Your task to perform on an android device: Go to Wikipedia Image 0: 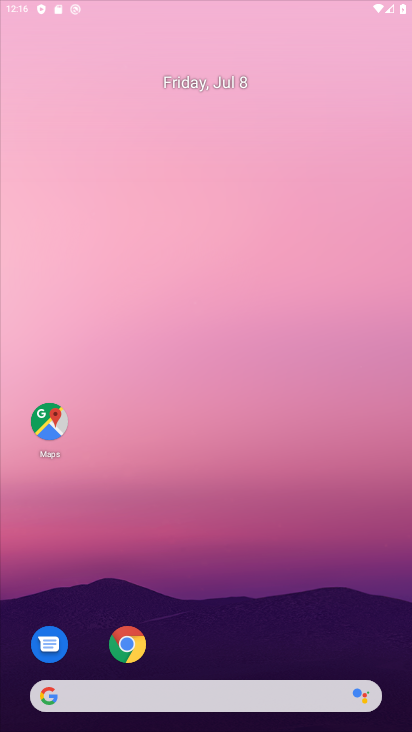
Step 0: drag from (190, 683) to (209, 261)
Your task to perform on an android device: Go to Wikipedia Image 1: 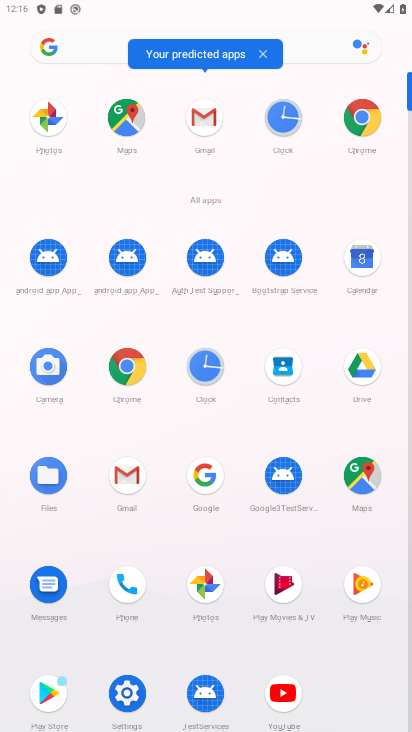
Step 1: click (126, 696)
Your task to perform on an android device: Go to Wikipedia Image 2: 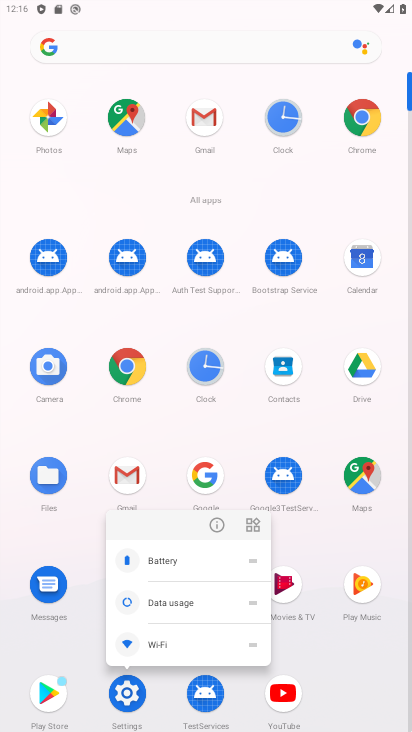
Step 2: click (352, 112)
Your task to perform on an android device: Go to Wikipedia Image 3: 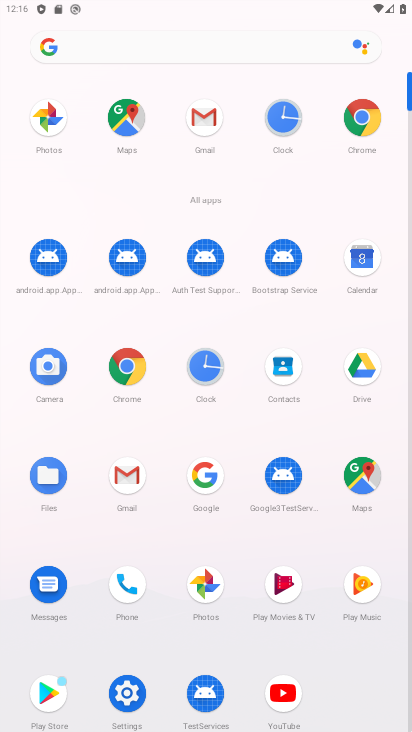
Step 3: click (361, 122)
Your task to perform on an android device: Go to Wikipedia Image 4: 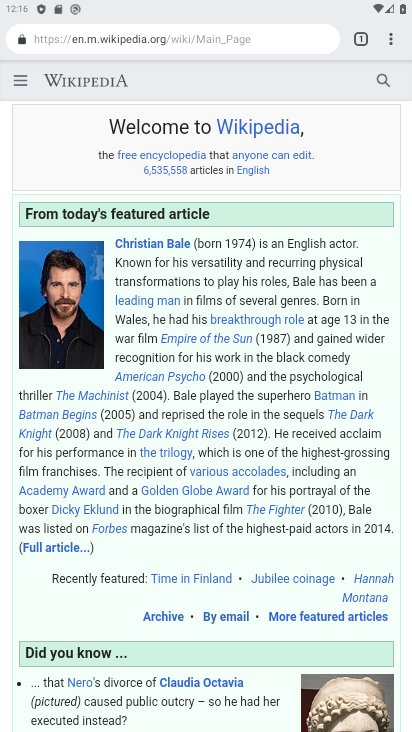
Step 4: task complete